Your task to perform on an android device: Is it going to rain this weekend? Image 0: 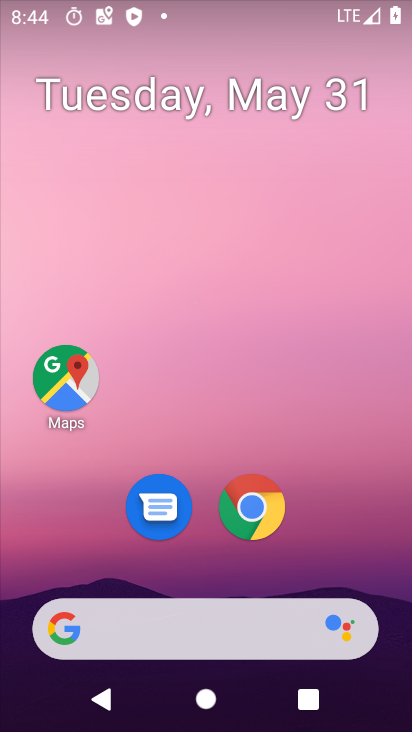
Step 0: click (122, 642)
Your task to perform on an android device: Is it going to rain this weekend? Image 1: 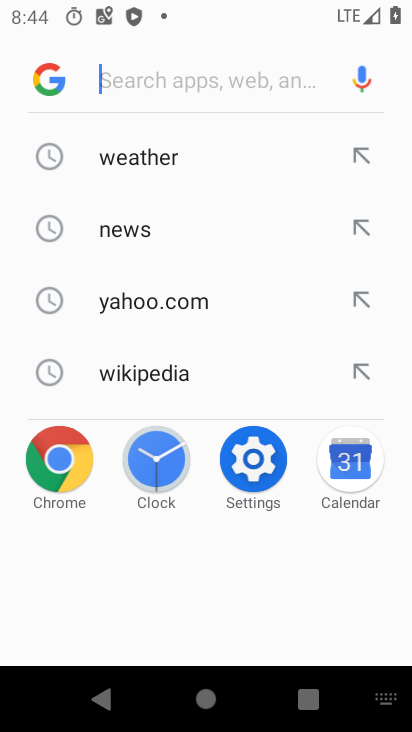
Step 1: click (148, 164)
Your task to perform on an android device: Is it going to rain this weekend? Image 2: 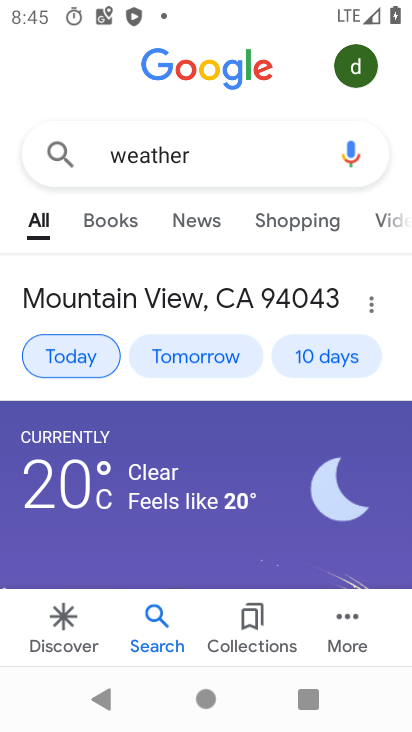
Step 2: click (333, 355)
Your task to perform on an android device: Is it going to rain this weekend? Image 3: 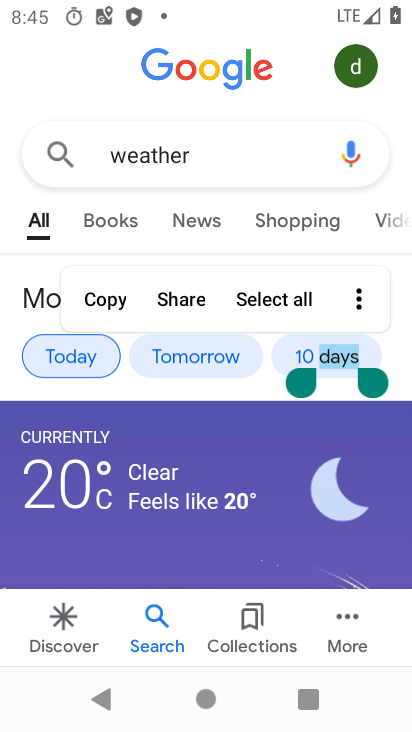
Step 3: click (270, 382)
Your task to perform on an android device: Is it going to rain this weekend? Image 4: 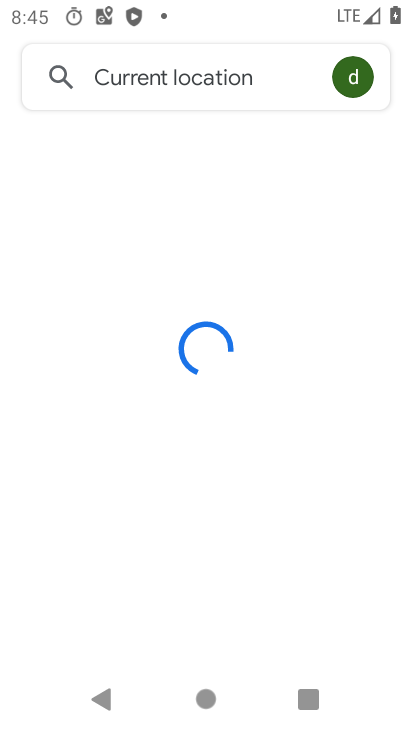
Step 4: click (406, 377)
Your task to perform on an android device: Is it going to rain this weekend? Image 5: 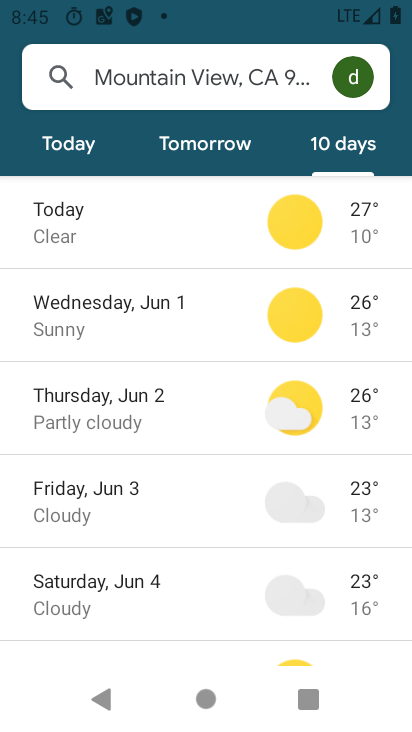
Step 5: task complete